Your task to perform on an android device: Show me the alarms in the clock app Image 0: 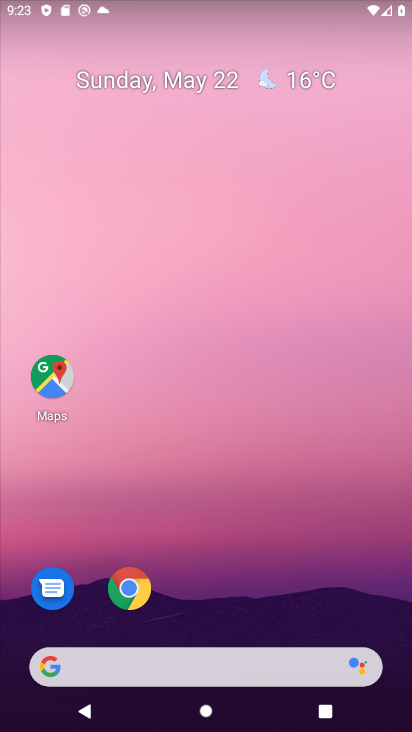
Step 0: drag from (230, 598) to (192, 254)
Your task to perform on an android device: Show me the alarms in the clock app Image 1: 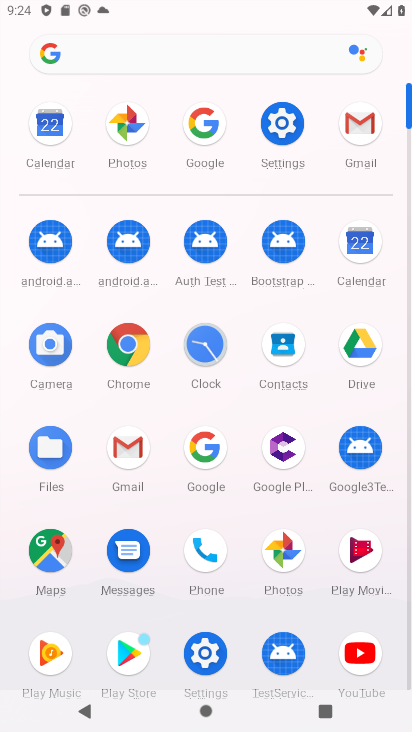
Step 1: click (211, 342)
Your task to perform on an android device: Show me the alarms in the clock app Image 2: 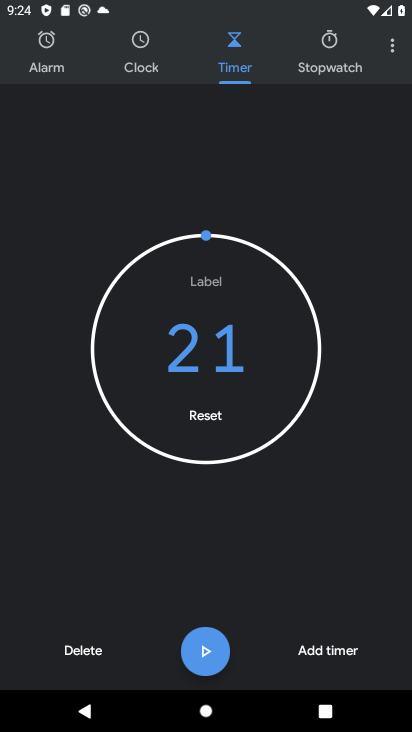
Step 2: click (56, 37)
Your task to perform on an android device: Show me the alarms in the clock app Image 3: 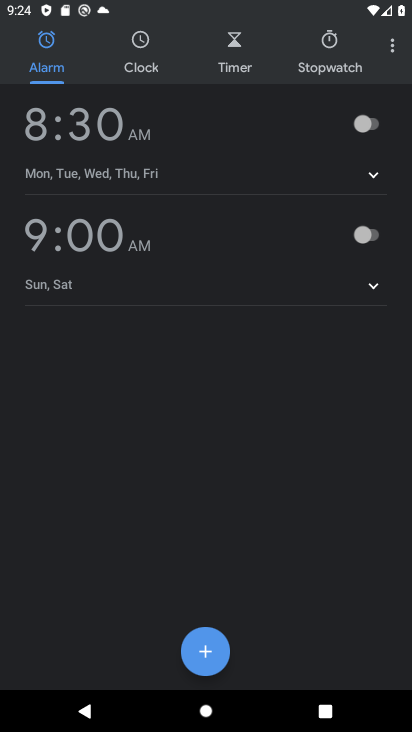
Step 3: click (375, 122)
Your task to perform on an android device: Show me the alarms in the clock app Image 4: 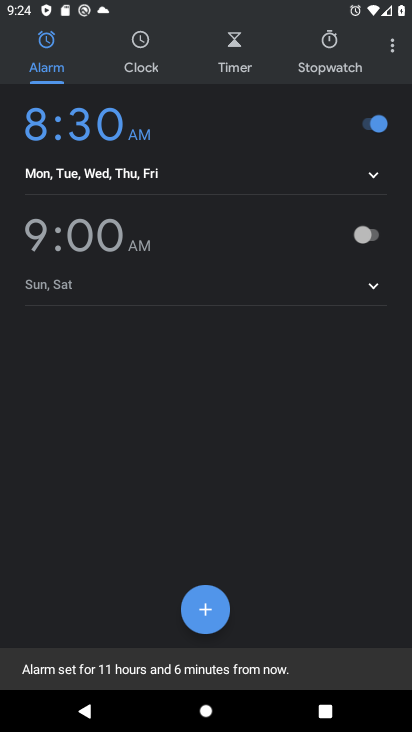
Step 4: click (361, 116)
Your task to perform on an android device: Show me the alarms in the clock app Image 5: 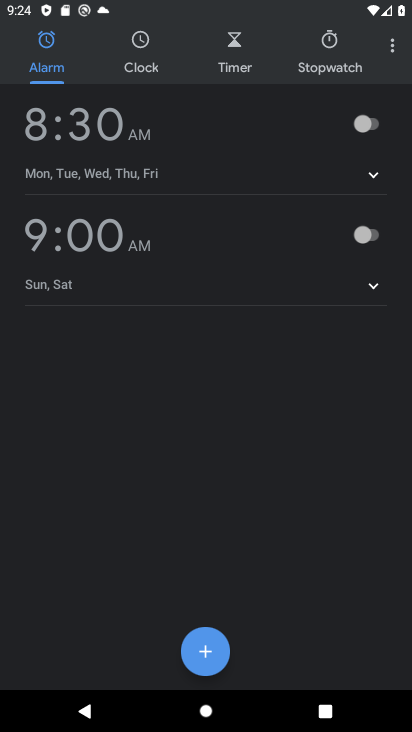
Step 5: task complete